Your task to perform on an android device: turn on airplane mode Image 0: 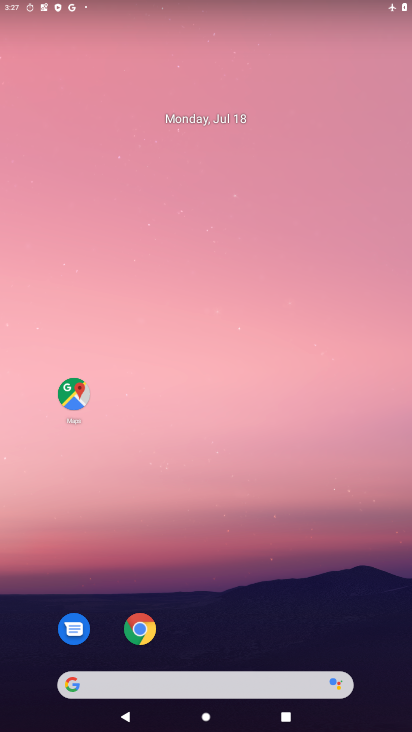
Step 0: drag from (216, 666) to (210, 0)
Your task to perform on an android device: turn on airplane mode Image 1: 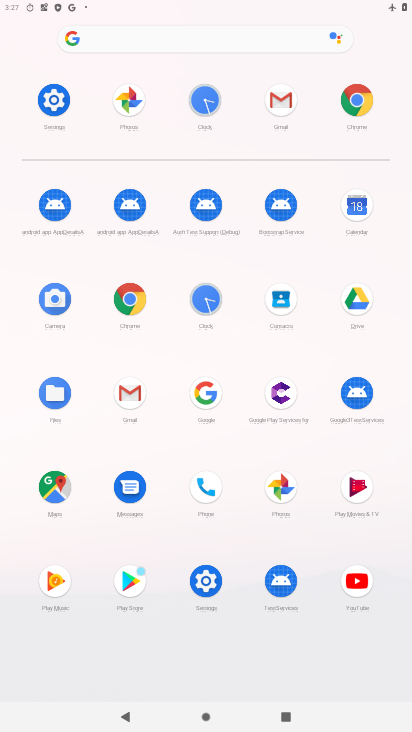
Step 1: click (37, 100)
Your task to perform on an android device: turn on airplane mode Image 2: 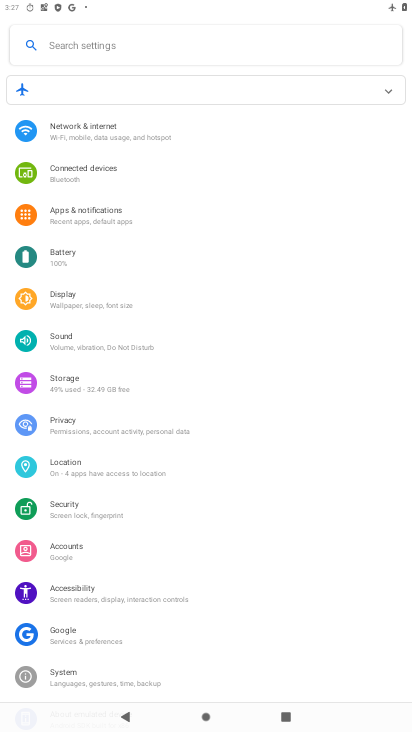
Step 2: click (97, 128)
Your task to perform on an android device: turn on airplane mode Image 3: 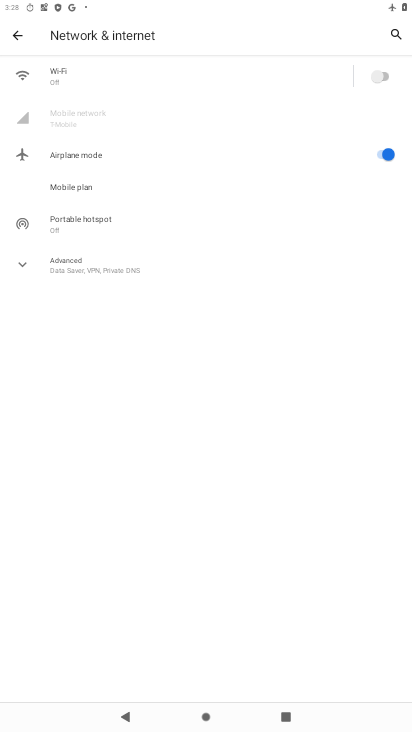
Step 3: task complete